Your task to perform on an android device: open app "PUBG MOBILE" (install if not already installed) Image 0: 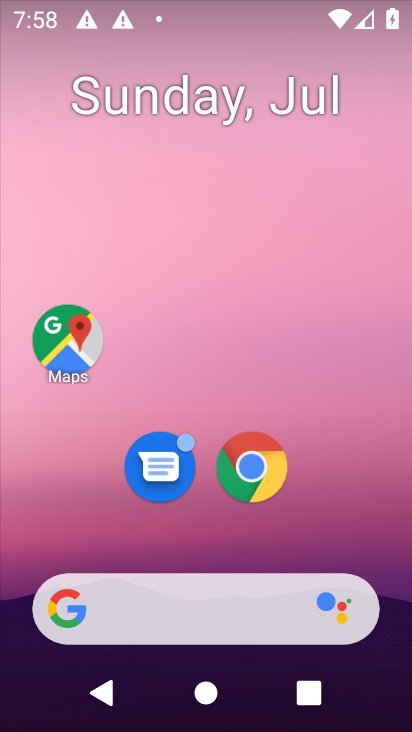
Step 0: drag from (187, 546) to (202, 131)
Your task to perform on an android device: open app "PUBG MOBILE" (install if not already installed) Image 1: 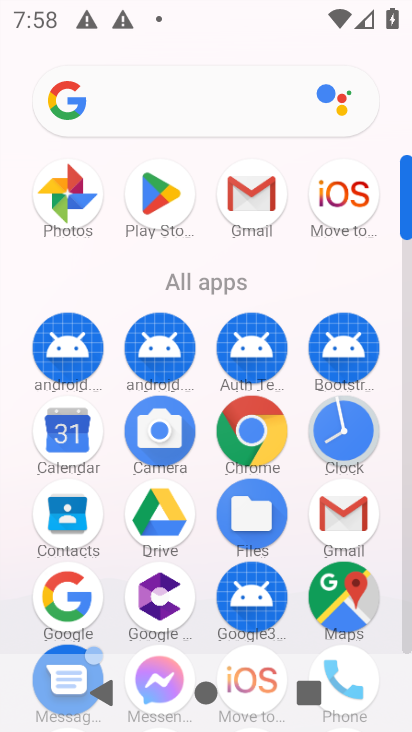
Step 1: drag from (214, 619) to (214, 120)
Your task to perform on an android device: open app "PUBG MOBILE" (install if not already installed) Image 2: 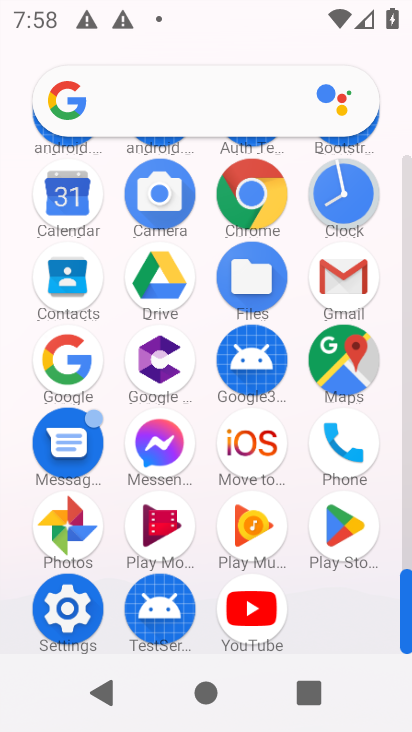
Step 2: click (215, 274)
Your task to perform on an android device: open app "PUBG MOBILE" (install if not already installed) Image 3: 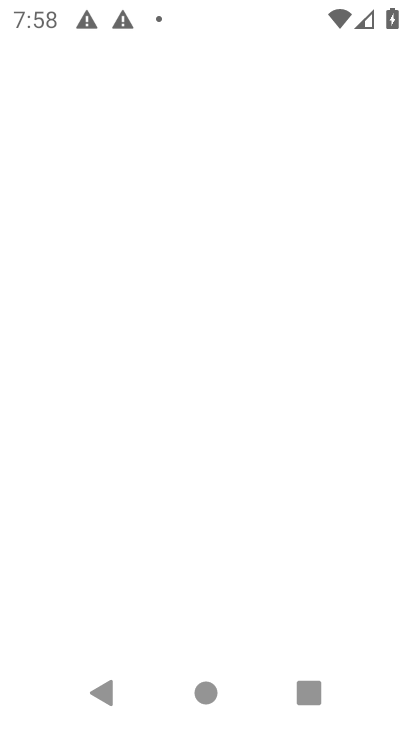
Step 3: press home button
Your task to perform on an android device: open app "PUBG MOBILE" (install if not already installed) Image 4: 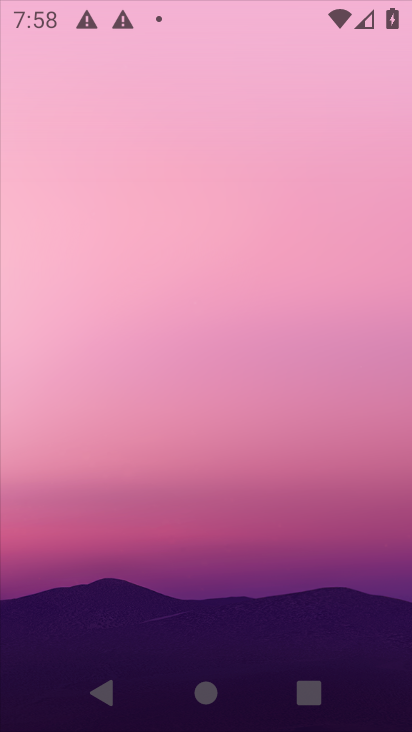
Step 4: press home button
Your task to perform on an android device: open app "PUBG MOBILE" (install if not already installed) Image 5: 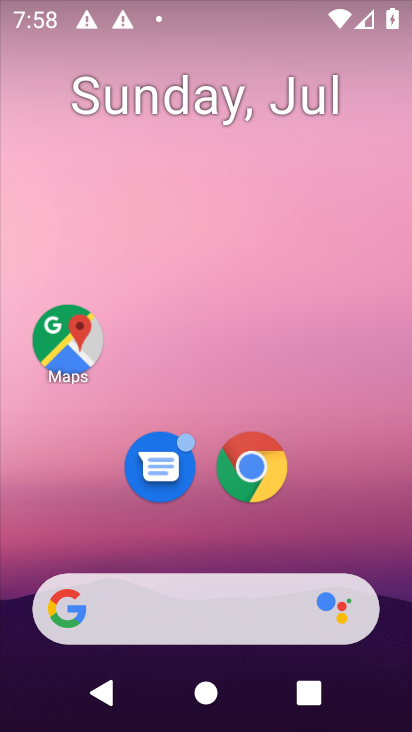
Step 5: drag from (202, 568) to (199, 152)
Your task to perform on an android device: open app "PUBG MOBILE" (install if not already installed) Image 6: 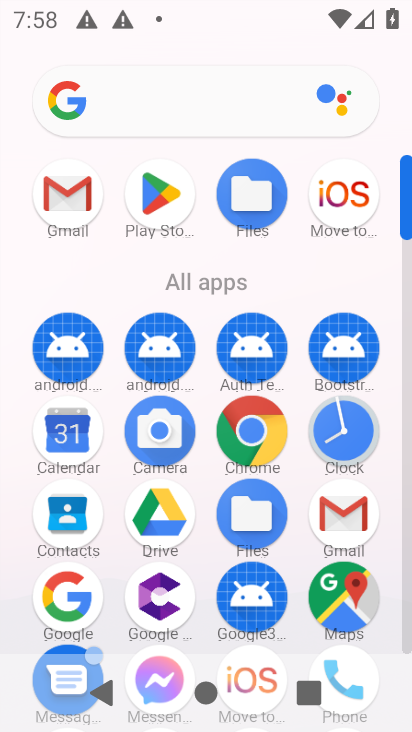
Step 6: drag from (210, 633) to (205, 264)
Your task to perform on an android device: open app "PUBG MOBILE" (install if not already installed) Image 7: 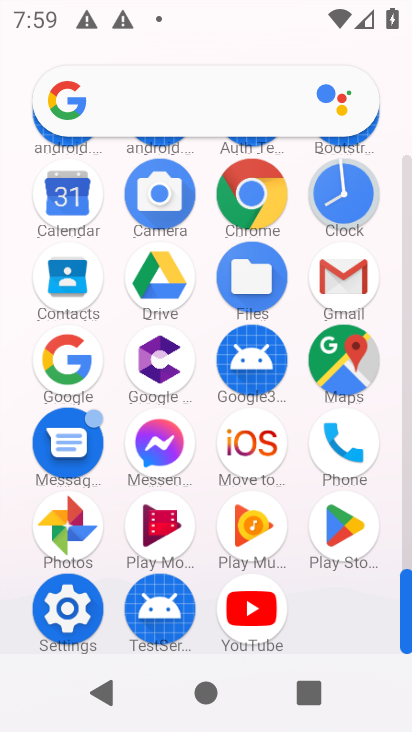
Step 7: click (340, 526)
Your task to perform on an android device: open app "PUBG MOBILE" (install if not already installed) Image 8: 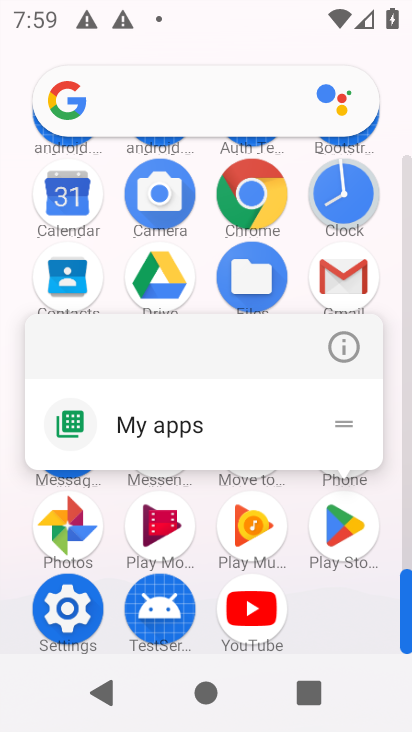
Step 8: click (343, 351)
Your task to perform on an android device: open app "PUBG MOBILE" (install if not already installed) Image 9: 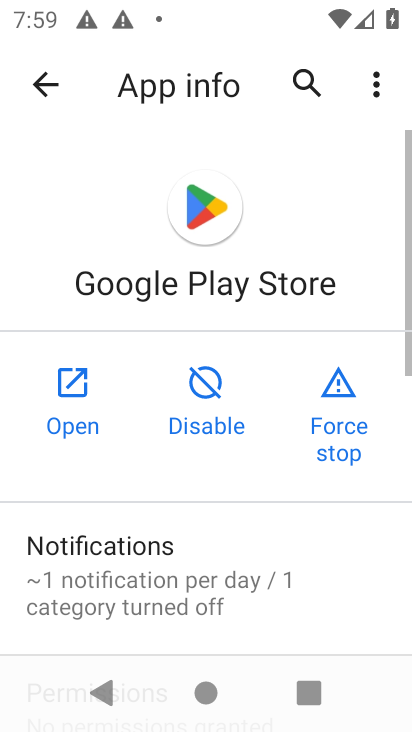
Step 9: click (77, 407)
Your task to perform on an android device: open app "PUBG MOBILE" (install if not already installed) Image 10: 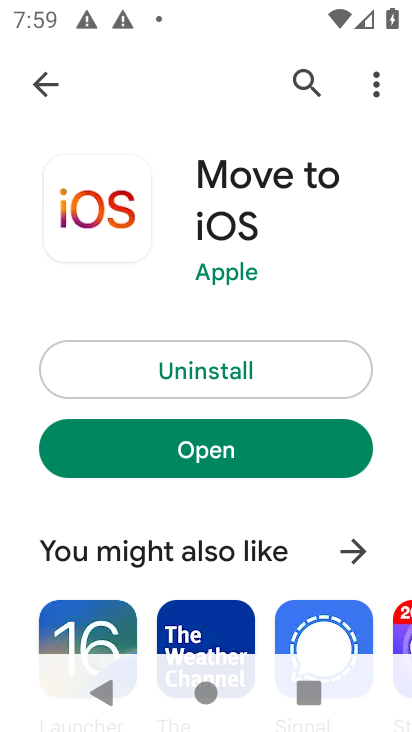
Step 10: drag from (205, 309) to (233, 123)
Your task to perform on an android device: open app "PUBG MOBILE" (install if not already installed) Image 11: 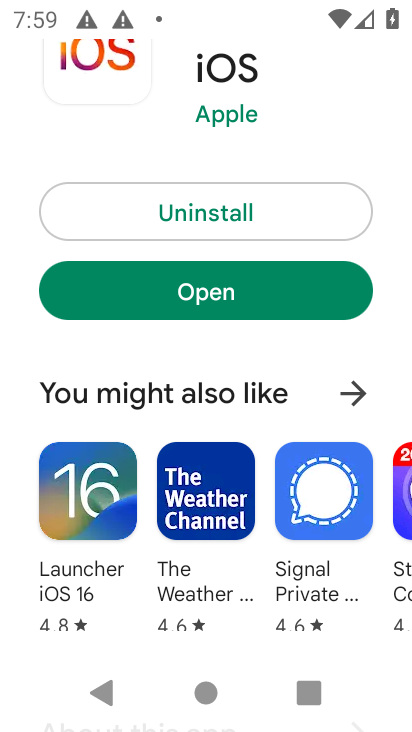
Step 11: drag from (228, 127) to (370, 704)
Your task to perform on an android device: open app "PUBG MOBILE" (install if not already installed) Image 12: 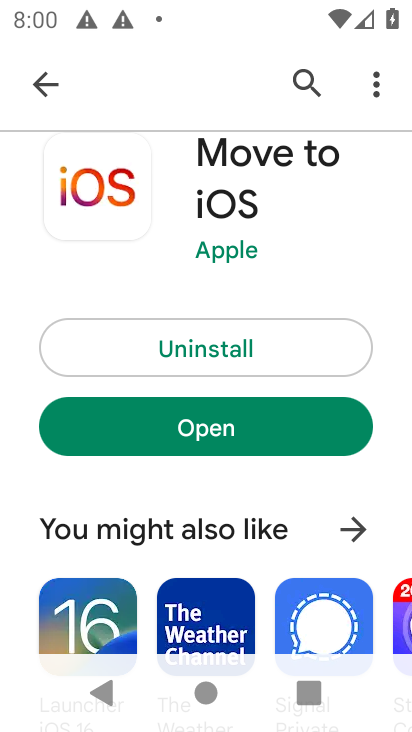
Step 12: drag from (208, 293) to (244, 720)
Your task to perform on an android device: open app "PUBG MOBILE" (install if not already installed) Image 13: 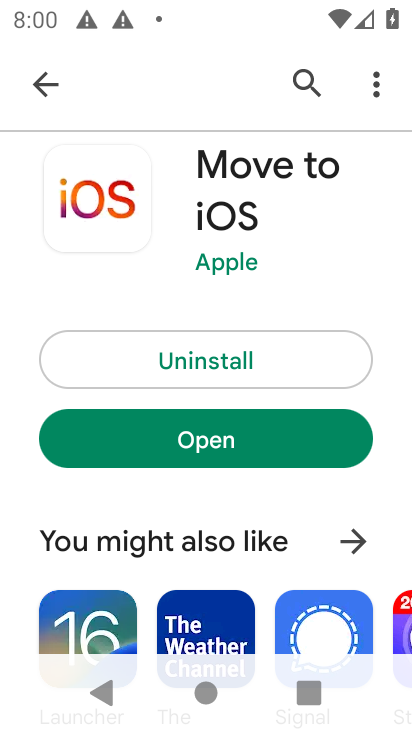
Step 13: click (306, 74)
Your task to perform on an android device: open app "PUBG MOBILE" (install if not already installed) Image 14: 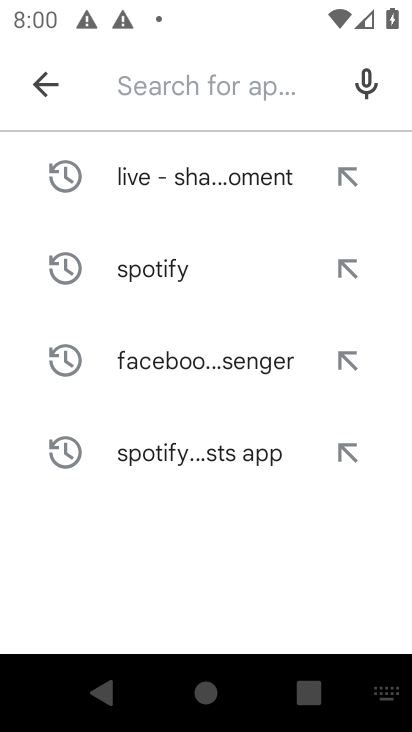
Step 14: type "PUBG MOBILE"
Your task to perform on an android device: open app "PUBG MOBILE" (install if not already installed) Image 15: 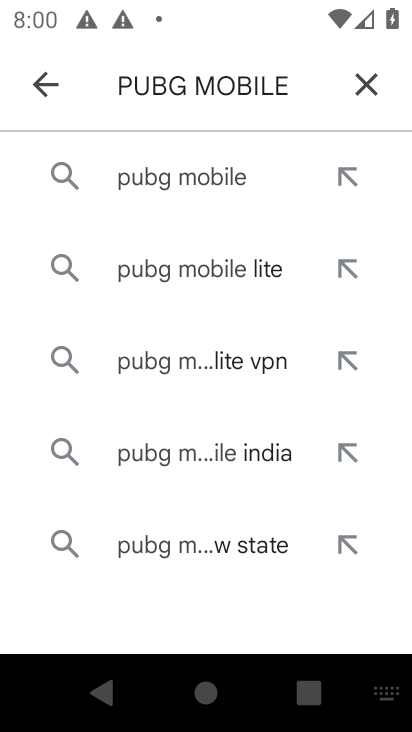
Step 15: click (197, 180)
Your task to perform on an android device: open app "PUBG MOBILE" (install if not already installed) Image 16: 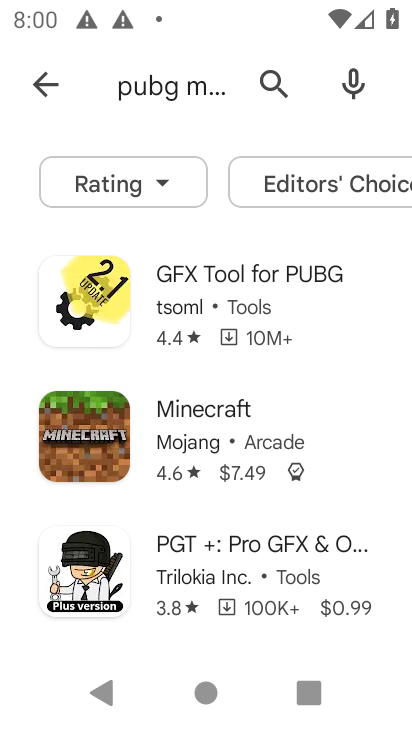
Step 16: drag from (273, 433) to (289, 360)
Your task to perform on an android device: open app "PUBG MOBILE" (install if not already installed) Image 17: 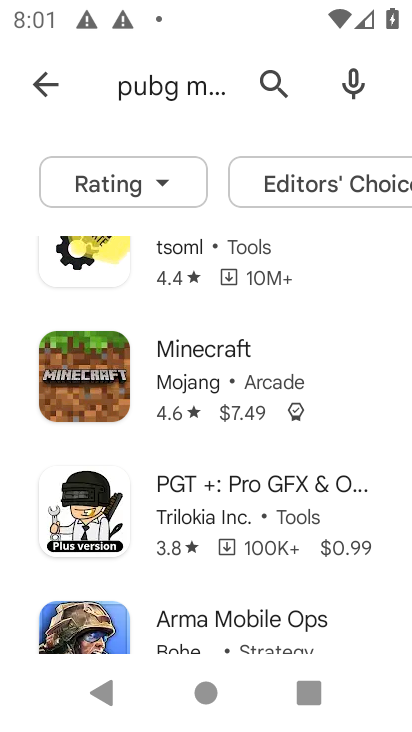
Step 17: drag from (211, 554) to (398, 726)
Your task to perform on an android device: open app "PUBG MOBILE" (install if not already installed) Image 18: 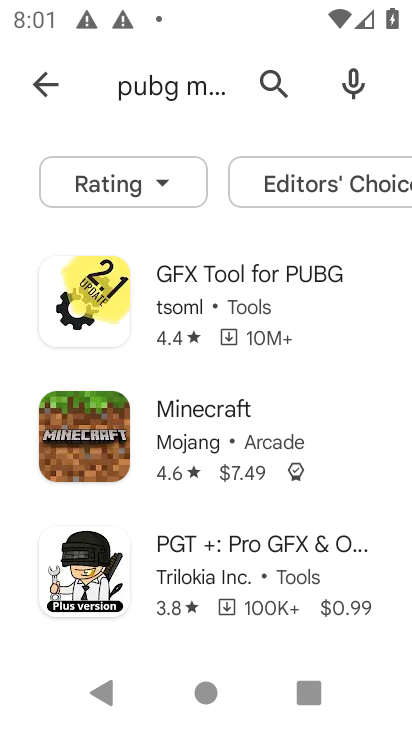
Step 18: drag from (217, 515) to (347, 727)
Your task to perform on an android device: open app "PUBG MOBILE" (install if not already installed) Image 19: 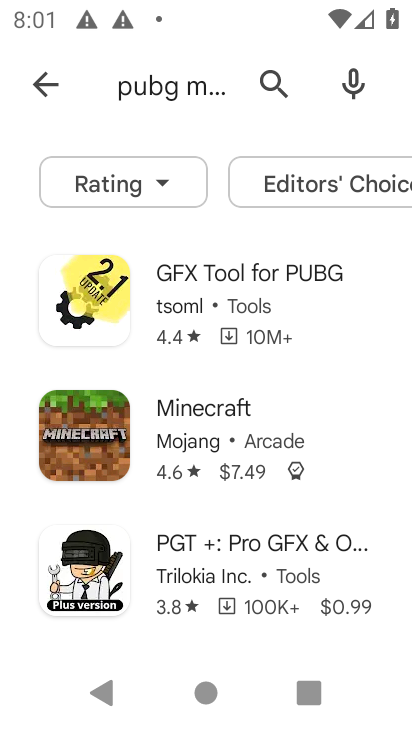
Step 19: drag from (222, 354) to (291, 692)
Your task to perform on an android device: open app "PUBG MOBILE" (install if not already installed) Image 20: 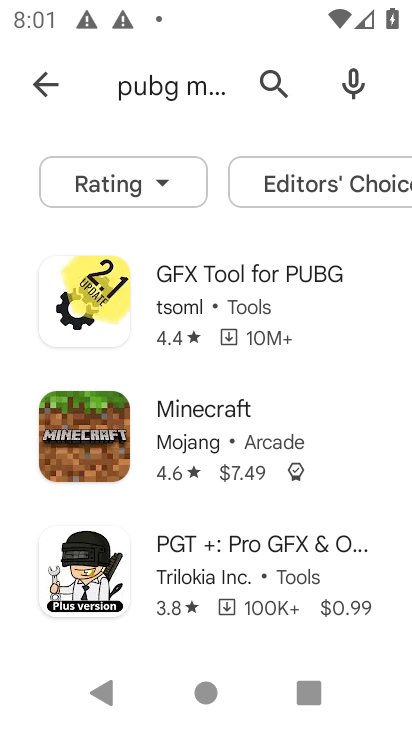
Step 20: drag from (211, 352) to (367, 707)
Your task to perform on an android device: open app "PUBG MOBILE" (install if not already installed) Image 21: 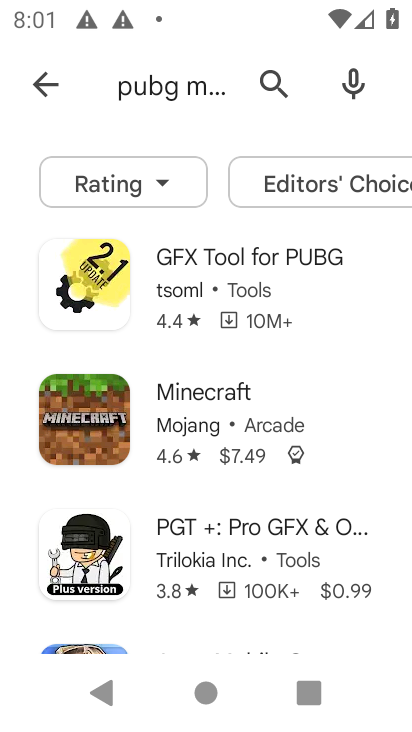
Step 21: drag from (193, 351) to (273, 730)
Your task to perform on an android device: open app "PUBG MOBILE" (install if not already installed) Image 22: 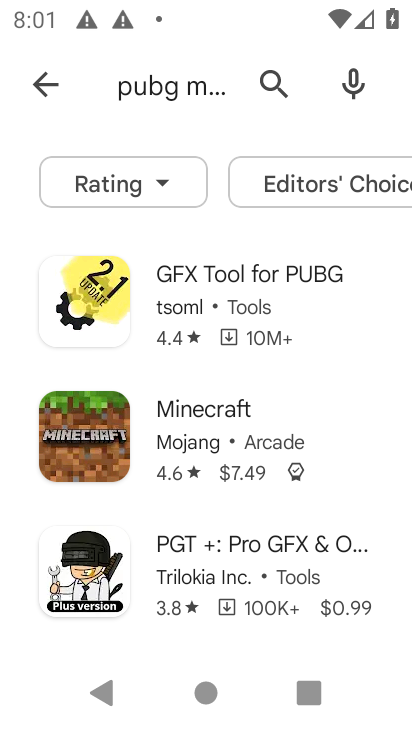
Step 22: drag from (213, 579) to (357, 392)
Your task to perform on an android device: open app "PUBG MOBILE" (install if not already installed) Image 23: 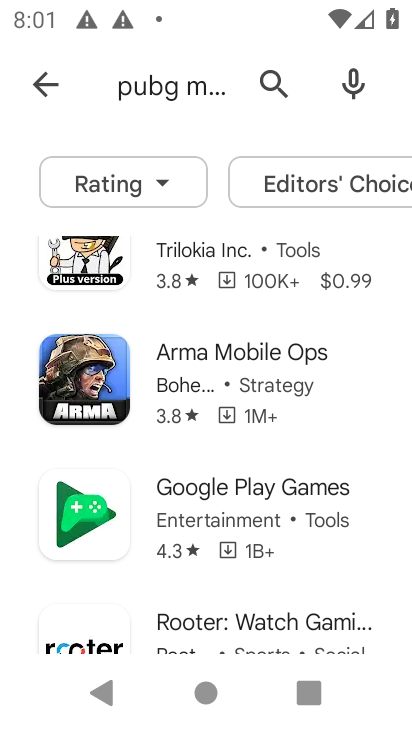
Step 23: drag from (202, 561) to (238, 460)
Your task to perform on an android device: open app "PUBG MOBILE" (install if not already installed) Image 24: 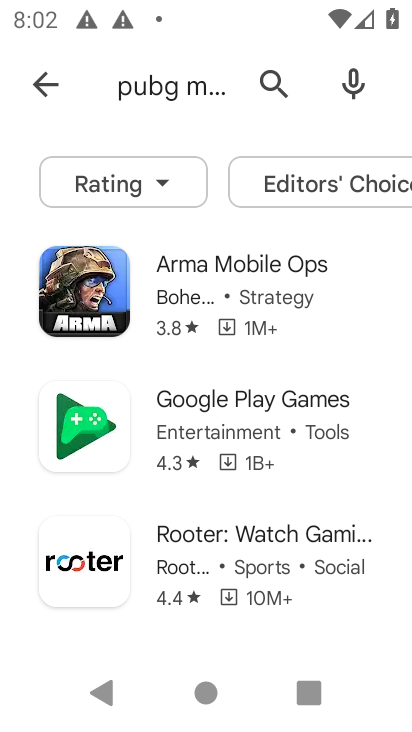
Step 24: drag from (177, 611) to (248, 277)
Your task to perform on an android device: open app "PUBG MOBILE" (install if not already installed) Image 25: 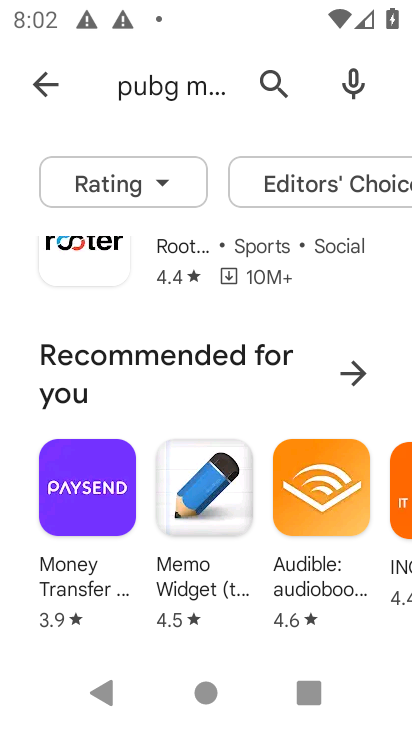
Step 25: drag from (213, 627) to (236, 232)
Your task to perform on an android device: open app "PUBG MOBILE" (install if not already installed) Image 26: 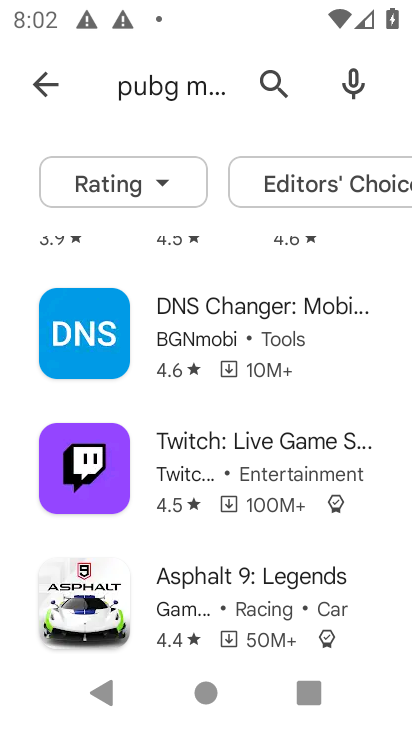
Step 26: drag from (198, 562) to (249, 404)
Your task to perform on an android device: open app "PUBG MOBILE" (install if not already installed) Image 27: 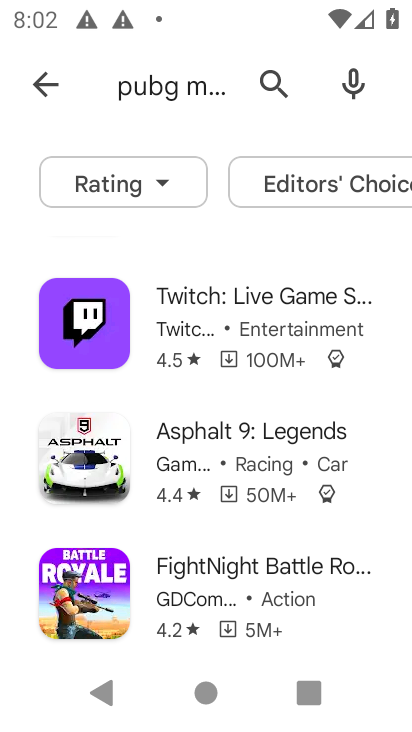
Step 27: drag from (204, 607) to (278, 327)
Your task to perform on an android device: open app "PUBG MOBILE" (install if not already installed) Image 28: 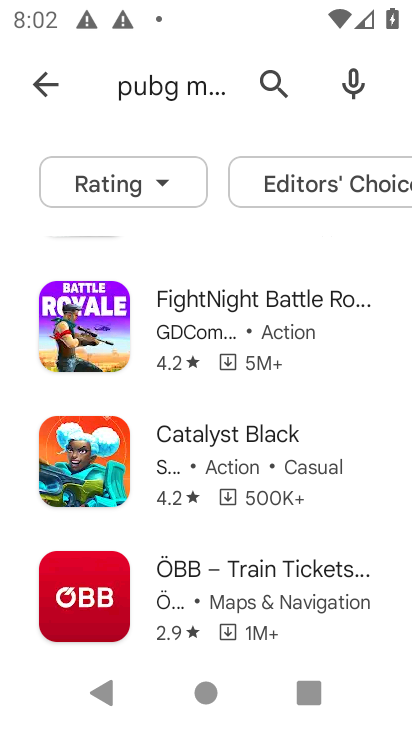
Step 28: drag from (207, 591) to (303, 323)
Your task to perform on an android device: open app "PUBG MOBILE" (install if not already installed) Image 29: 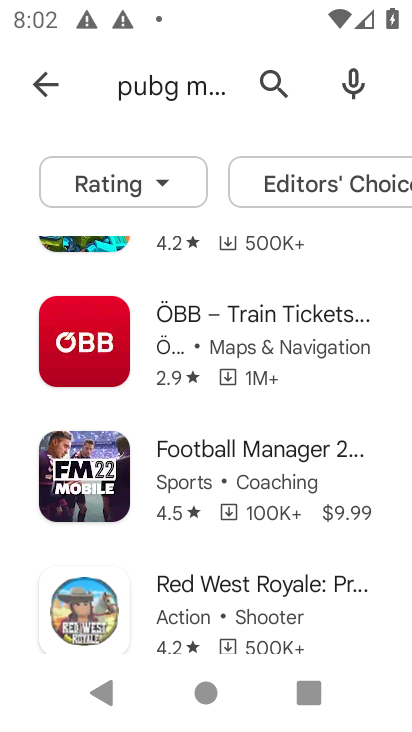
Step 29: click (276, 75)
Your task to perform on an android device: open app "PUBG MOBILE" (install if not already installed) Image 30: 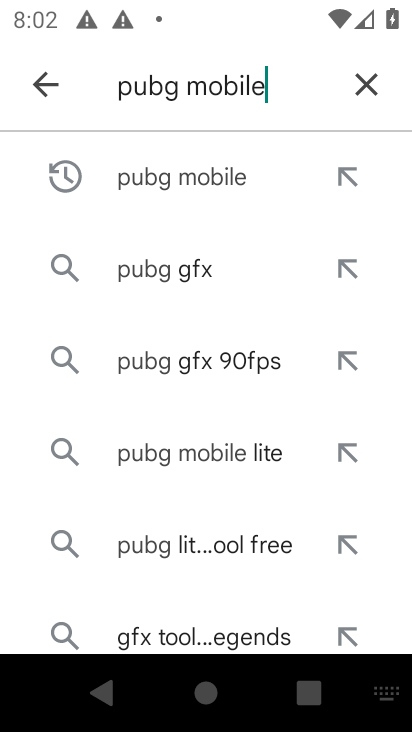
Step 30: click (179, 172)
Your task to perform on an android device: open app "PUBG MOBILE" (install if not already installed) Image 31: 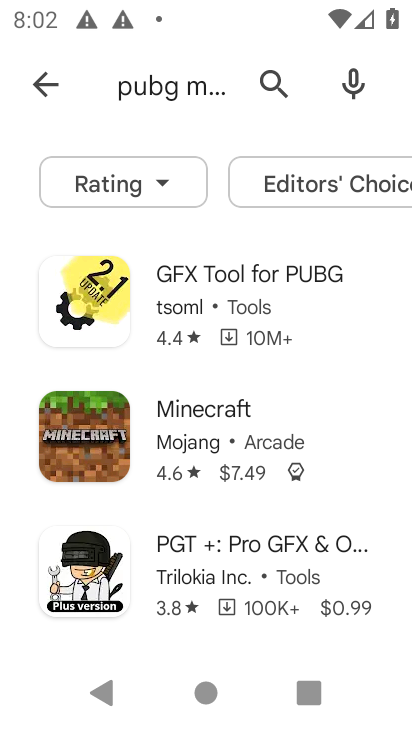
Step 31: task complete